Your task to perform on an android device: snooze an email in the gmail app Image 0: 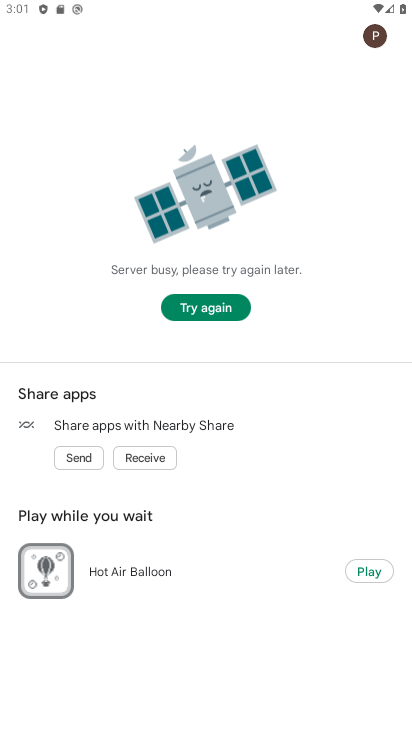
Step 0: press home button
Your task to perform on an android device: snooze an email in the gmail app Image 1: 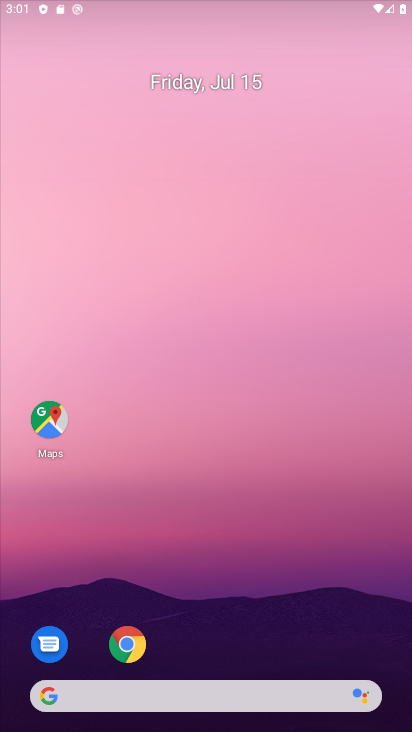
Step 1: drag from (338, 644) to (274, 38)
Your task to perform on an android device: snooze an email in the gmail app Image 2: 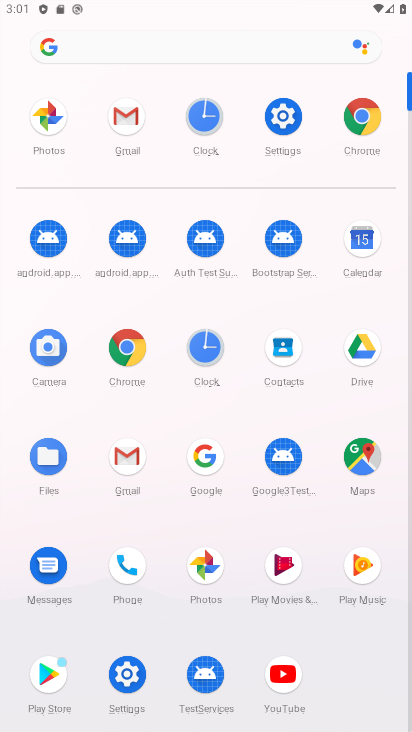
Step 2: click (124, 462)
Your task to perform on an android device: snooze an email in the gmail app Image 3: 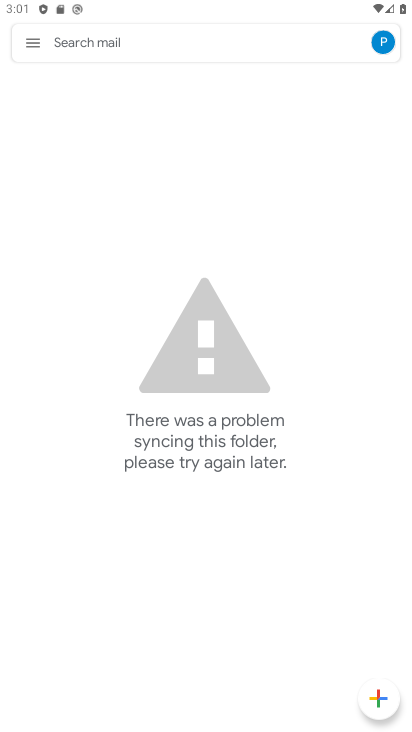
Step 3: click (28, 33)
Your task to perform on an android device: snooze an email in the gmail app Image 4: 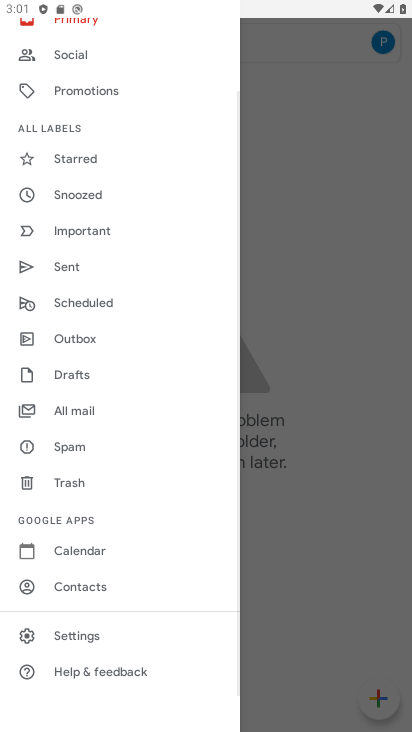
Step 4: click (83, 190)
Your task to perform on an android device: snooze an email in the gmail app Image 5: 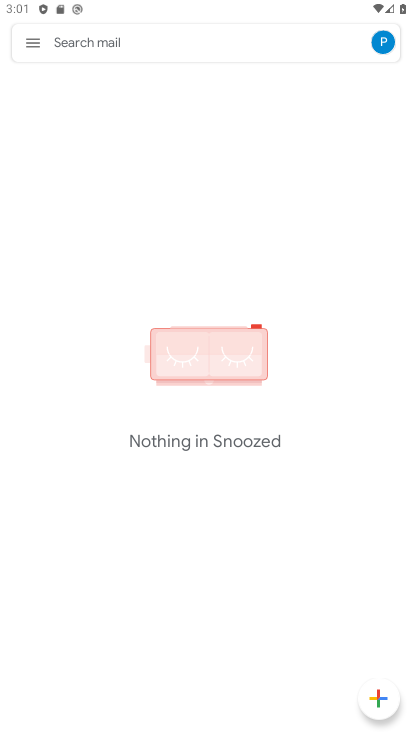
Step 5: task complete